Your task to perform on an android device: open chrome and create a bookmark for the current page Image 0: 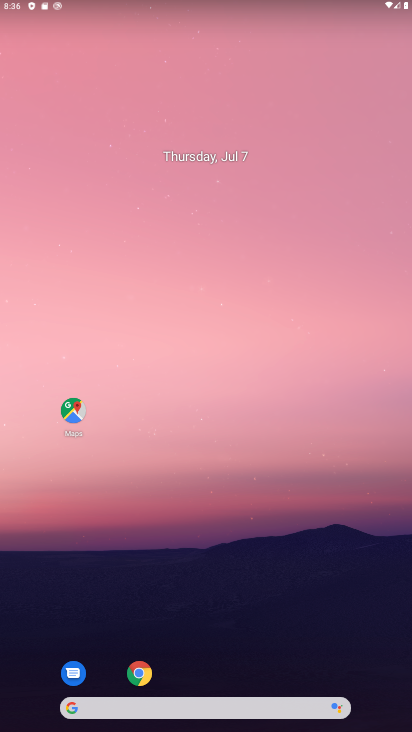
Step 0: click (143, 677)
Your task to perform on an android device: open chrome and create a bookmark for the current page Image 1: 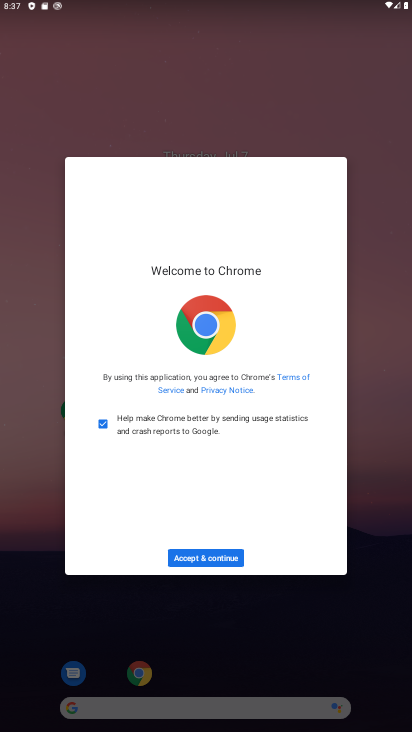
Step 1: click (227, 555)
Your task to perform on an android device: open chrome and create a bookmark for the current page Image 2: 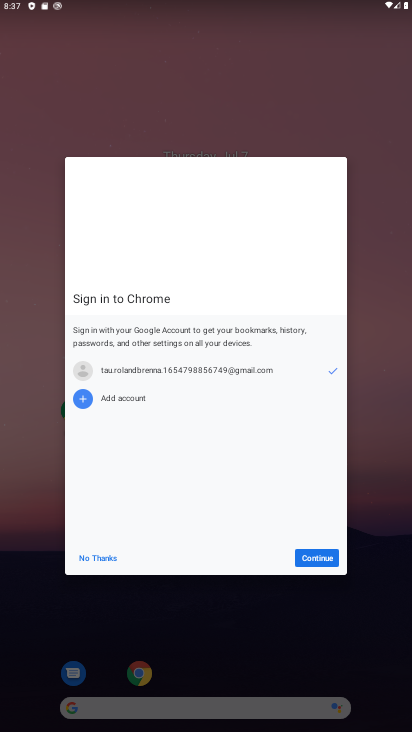
Step 2: click (310, 552)
Your task to perform on an android device: open chrome and create a bookmark for the current page Image 3: 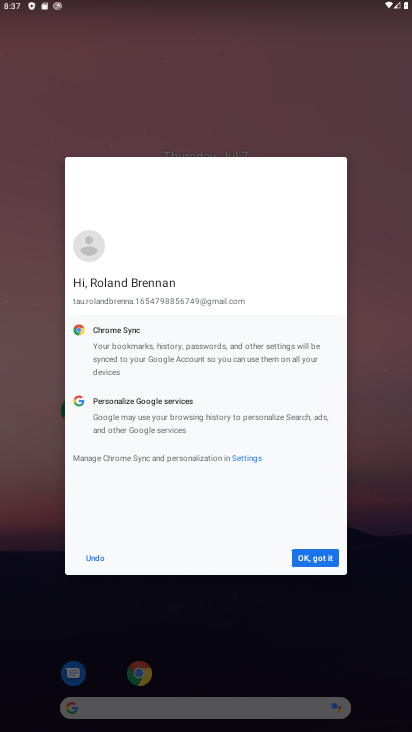
Step 3: click (310, 552)
Your task to perform on an android device: open chrome and create a bookmark for the current page Image 4: 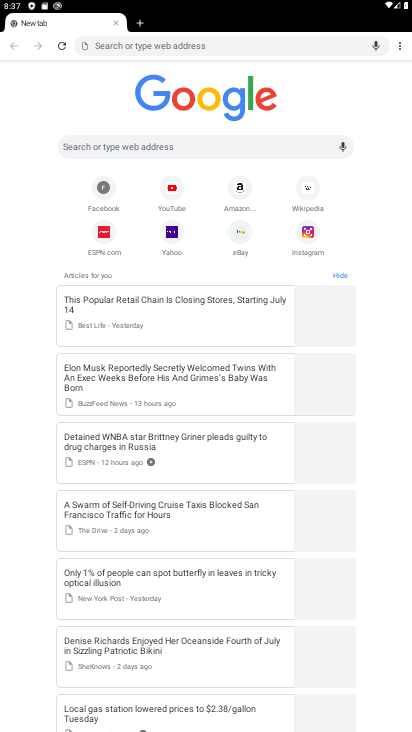
Step 4: click (397, 47)
Your task to perform on an android device: open chrome and create a bookmark for the current page Image 5: 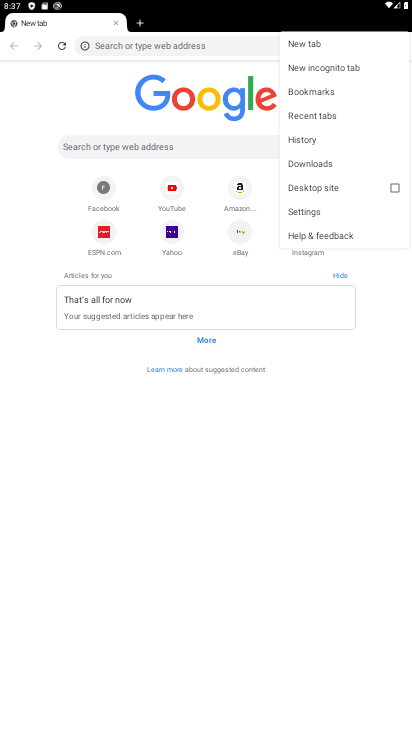
Step 5: click (370, 367)
Your task to perform on an android device: open chrome and create a bookmark for the current page Image 6: 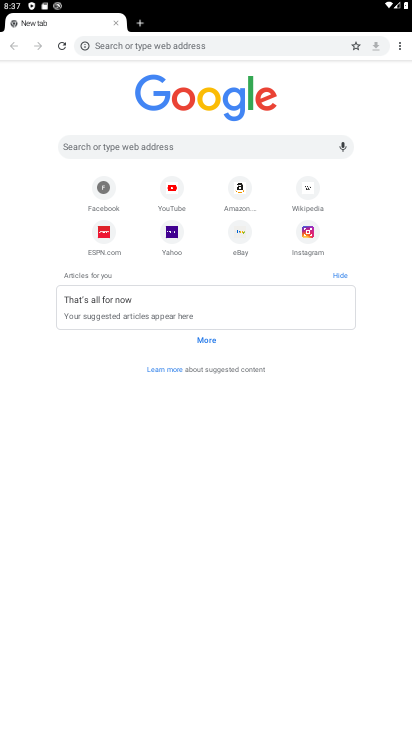
Step 6: click (354, 47)
Your task to perform on an android device: open chrome and create a bookmark for the current page Image 7: 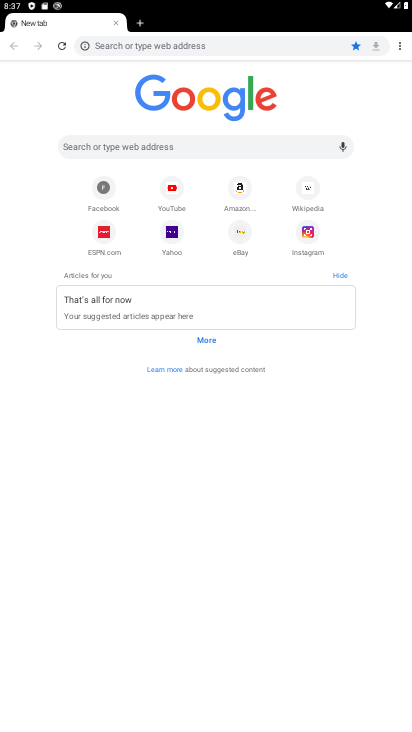
Step 7: task complete